Your task to perform on an android device: change the clock display to digital Image 0: 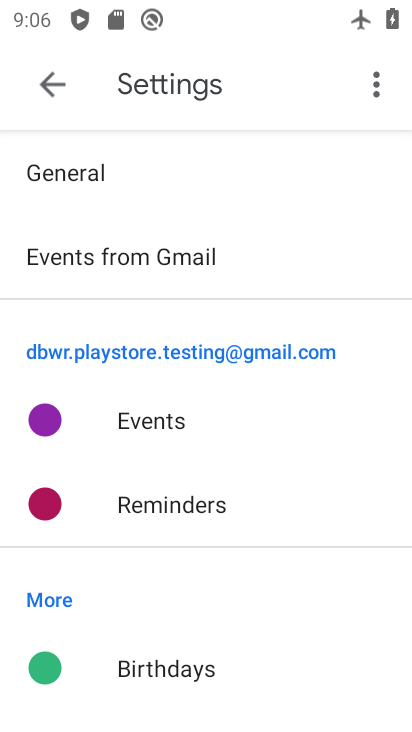
Step 0: press home button
Your task to perform on an android device: change the clock display to digital Image 1: 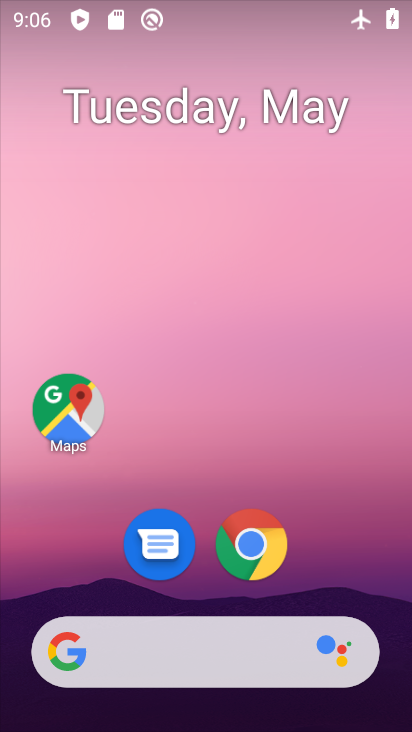
Step 1: drag from (362, 532) to (339, 147)
Your task to perform on an android device: change the clock display to digital Image 2: 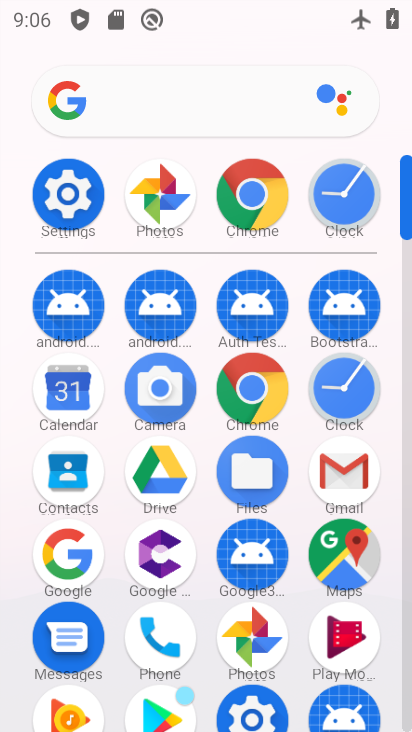
Step 2: click (345, 396)
Your task to perform on an android device: change the clock display to digital Image 3: 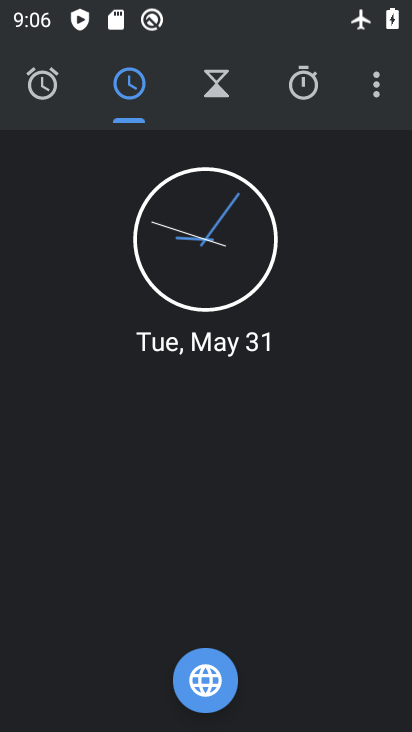
Step 3: task complete